Your task to perform on an android device: Open Google Chrome and open the bookmarks view Image 0: 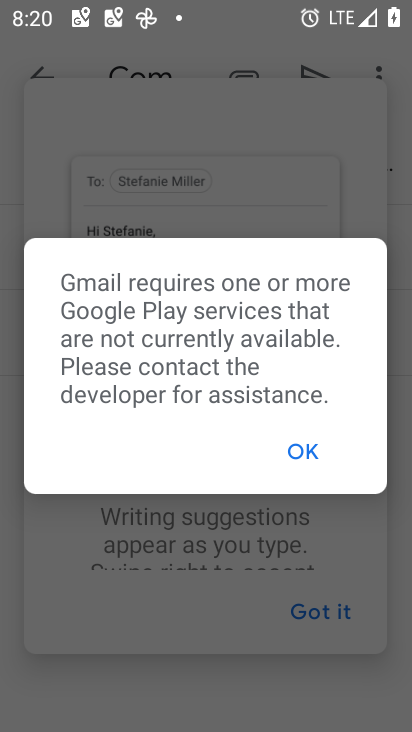
Step 0: press home button
Your task to perform on an android device: Open Google Chrome and open the bookmarks view Image 1: 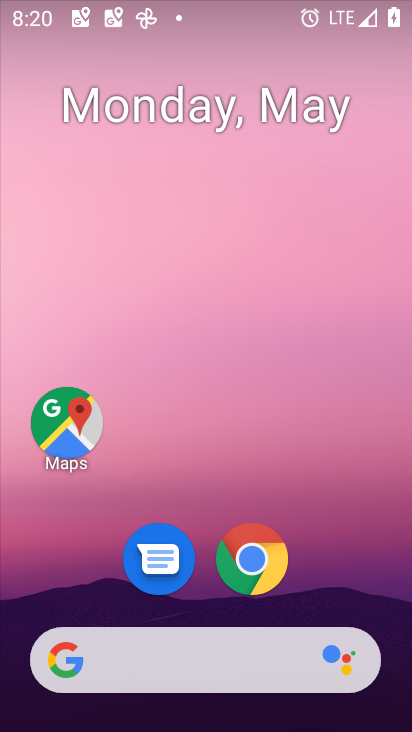
Step 1: drag from (364, 626) to (311, 105)
Your task to perform on an android device: Open Google Chrome and open the bookmarks view Image 2: 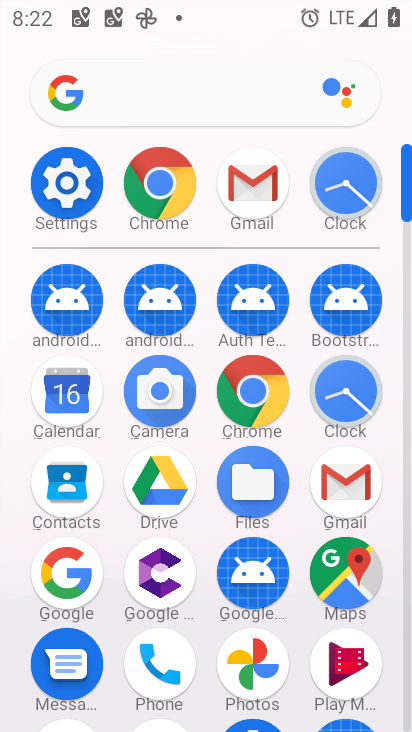
Step 2: click (154, 179)
Your task to perform on an android device: Open Google Chrome and open the bookmarks view Image 3: 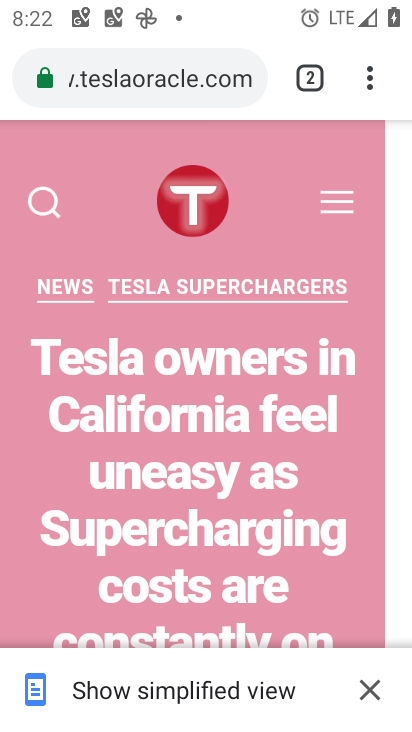
Step 3: press back button
Your task to perform on an android device: Open Google Chrome and open the bookmarks view Image 4: 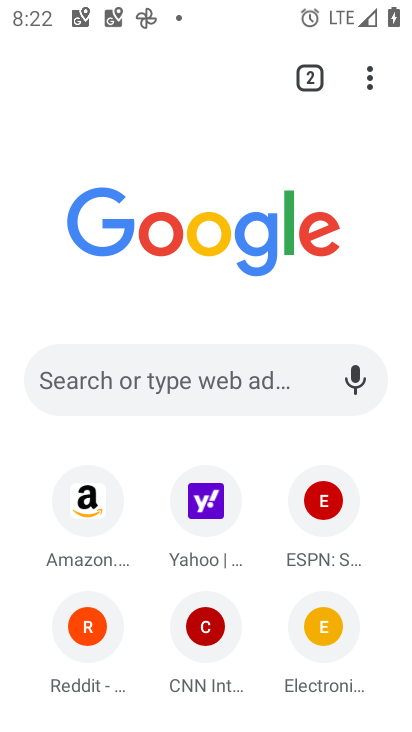
Step 4: click (365, 79)
Your task to perform on an android device: Open Google Chrome and open the bookmarks view Image 5: 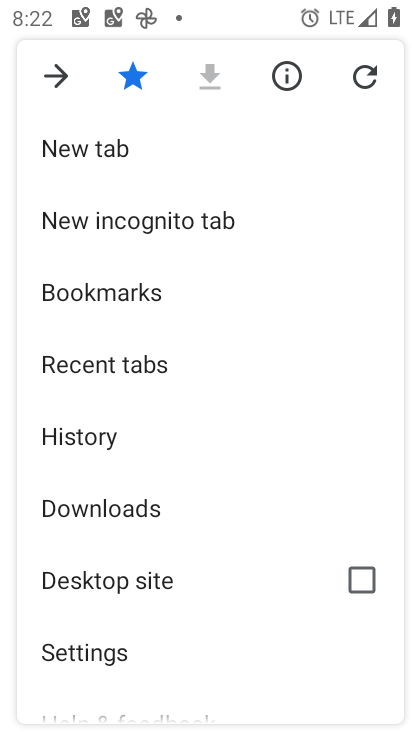
Step 5: click (145, 303)
Your task to perform on an android device: Open Google Chrome and open the bookmarks view Image 6: 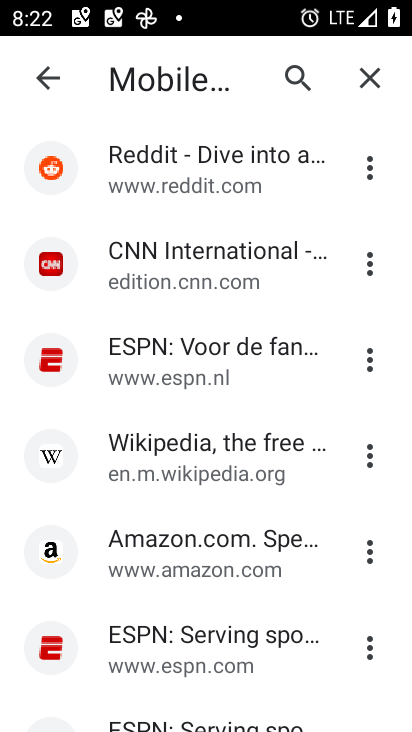
Step 6: task complete